Your task to perform on an android device: Open Maps and search for coffee Image 0: 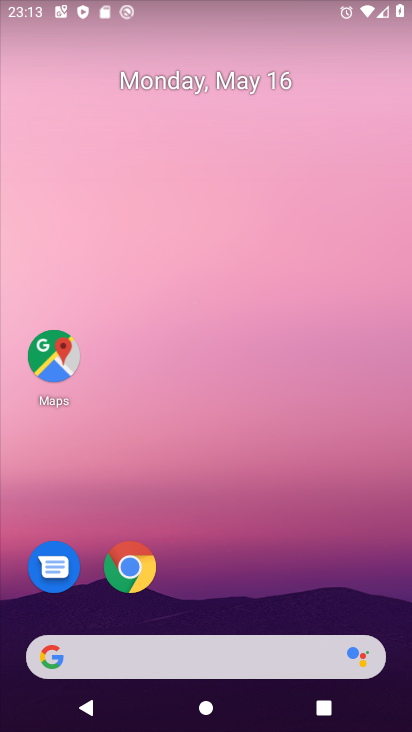
Step 0: click (48, 353)
Your task to perform on an android device: Open Maps and search for coffee Image 1: 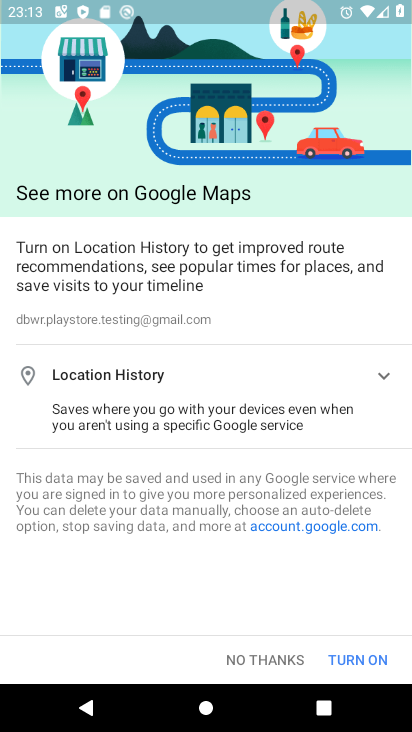
Step 1: click (375, 655)
Your task to perform on an android device: Open Maps and search for coffee Image 2: 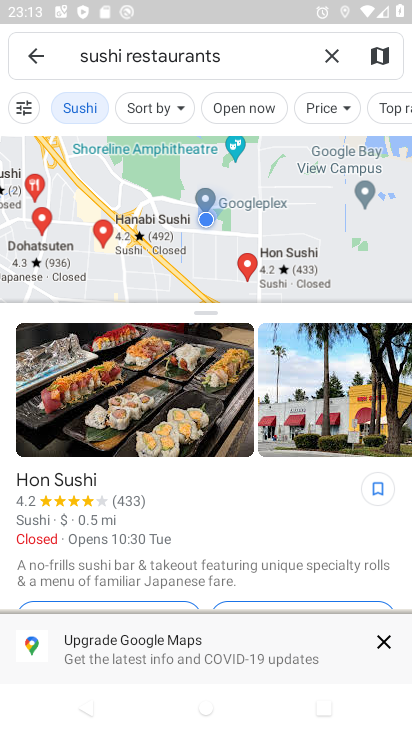
Step 2: click (333, 54)
Your task to perform on an android device: Open Maps and search for coffee Image 3: 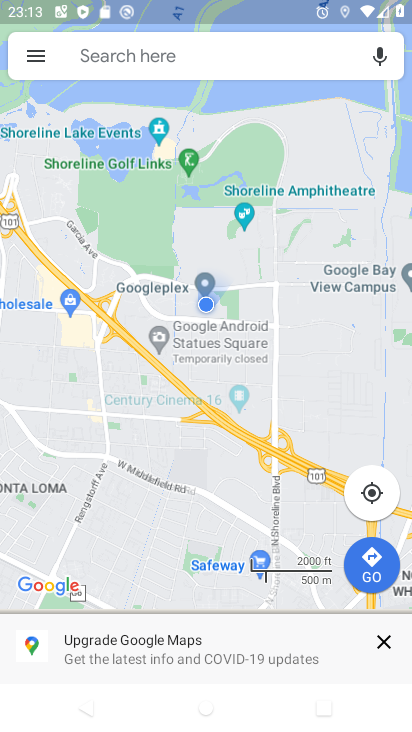
Step 3: click (146, 54)
Your task to perform on an android device: Open Maps and search for coffee Image 4: 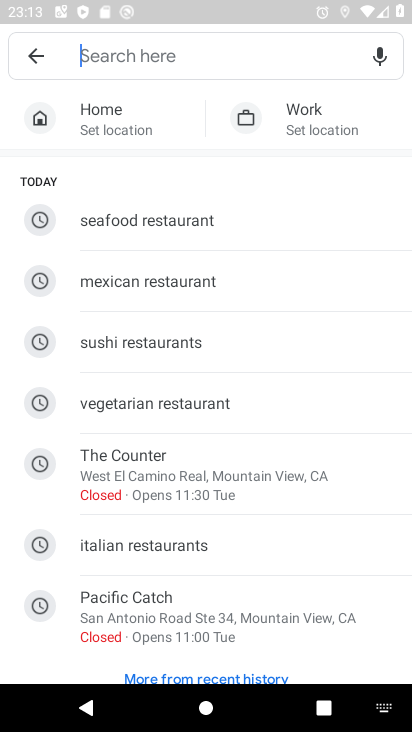
Step 4: type "coffee"
Your task to perform on an android device: Open Maps and search for coffee Image 5: 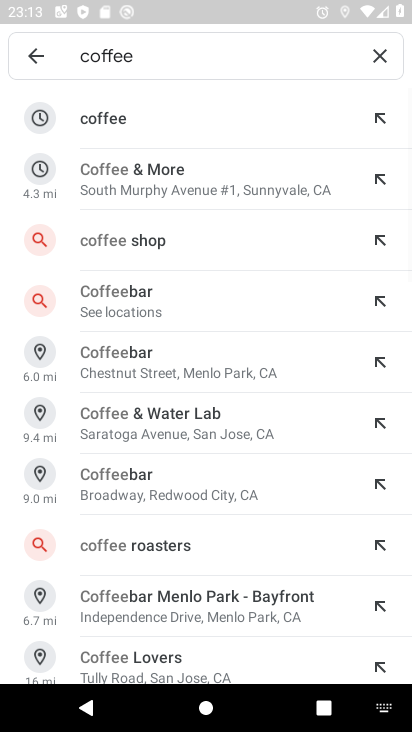
Step 5: click (115, 115)
Your task to perform on an android device: Open Maps and search for coffee Image 6: 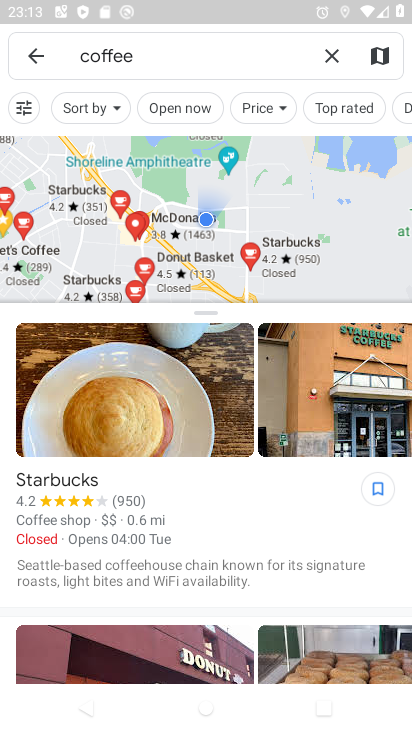
Step 6: task complete